Your task to perform on an android device: Go to eBay Image 0: 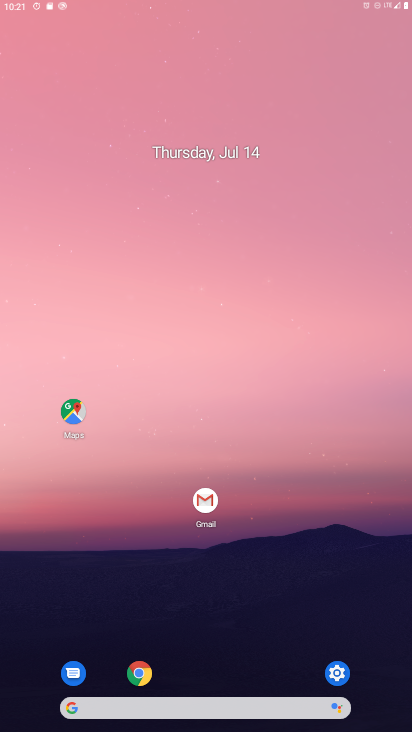
Step 0: press home button
Your task to perform on an android device: Go to eBay Image 1: 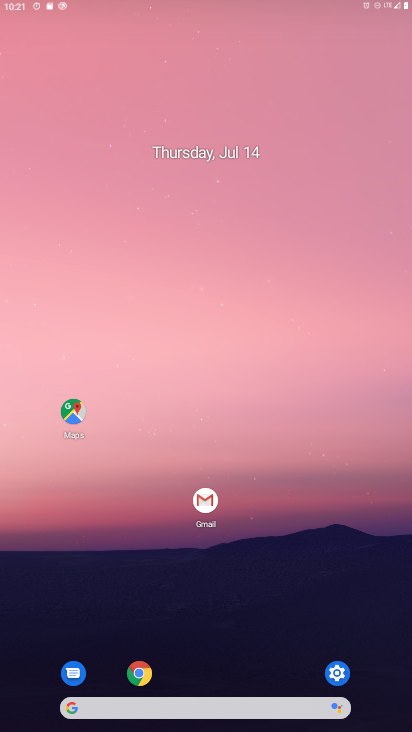
Step 1: click (139, 663)
Your task to perform on an android device: Go to eBay Image 2: 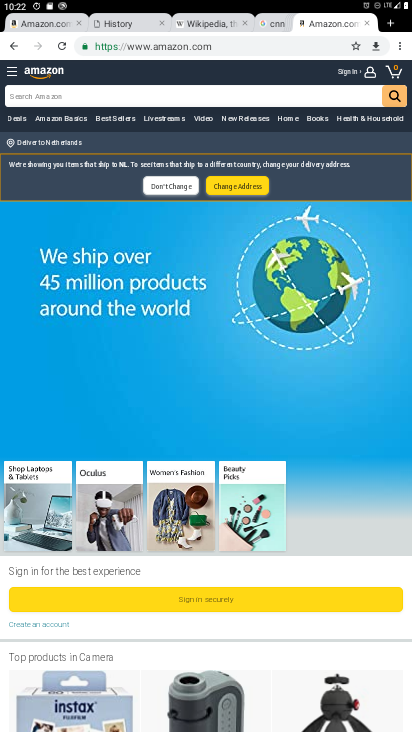
Step 2: click (304, 42)
Your task to perform on an android device: Go to eBay Image 3: 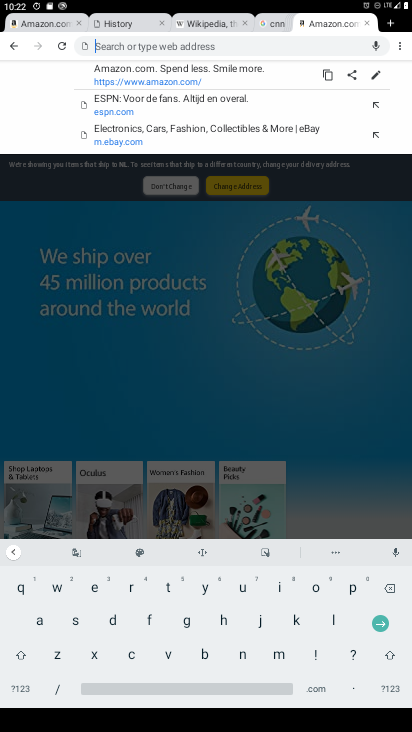
Step 3: click (91, 586)
Your task to perform on an android device: Go to eBay Image 4: 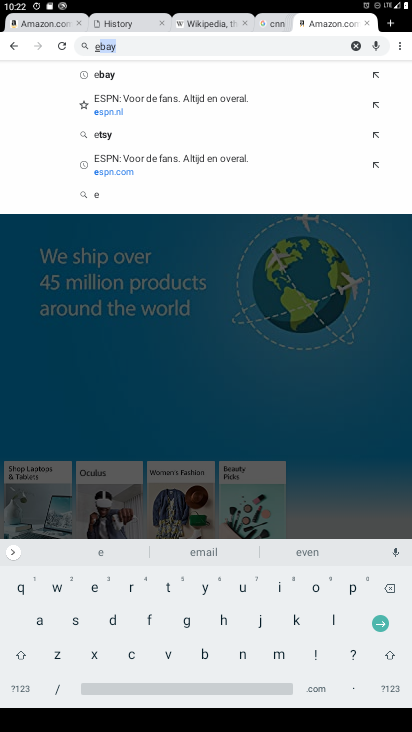
Step 4: click (126, 78)
Your task to perform on an android device: Go to eBay Image 5: 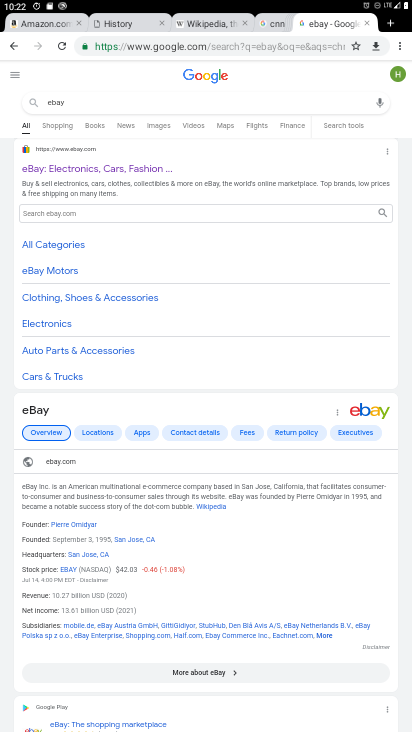
Step 5: click (93, 164)
Your task to perform on an android device: Go to eBay Image 6: 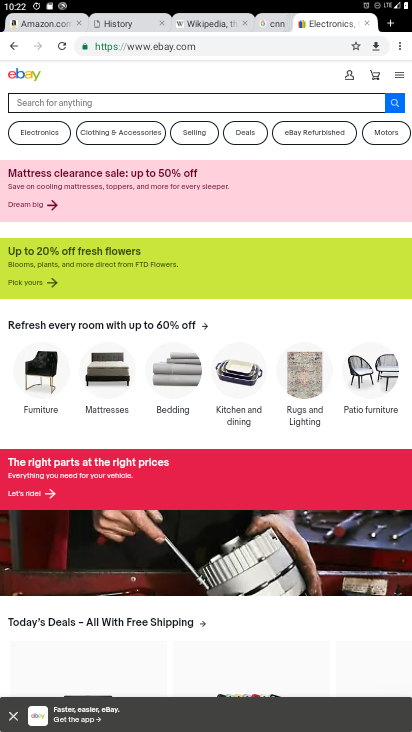
Step 6: task complete